Your task to perform on an android device: Open settings Image 0: 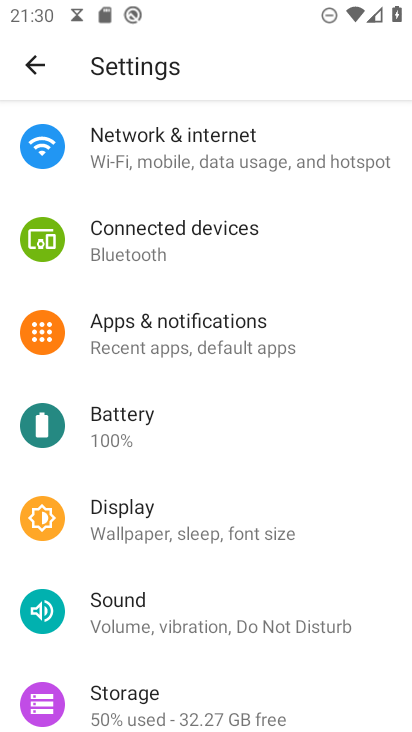
Step 0: task complete